Your task to perform on an android device: Go to wifi settings Image 0: 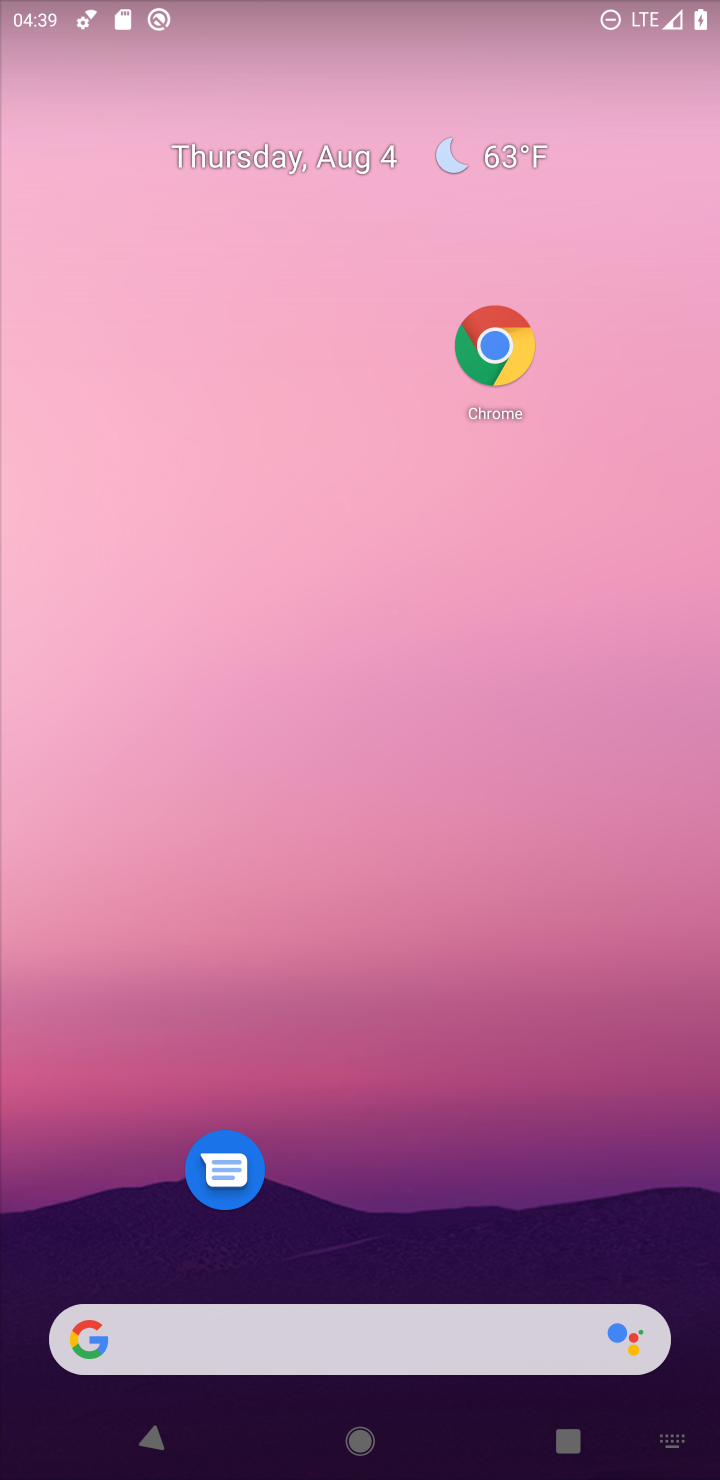
Step 0: press home button
Your task to perform on an android device: Go to wifi settings Image 1: 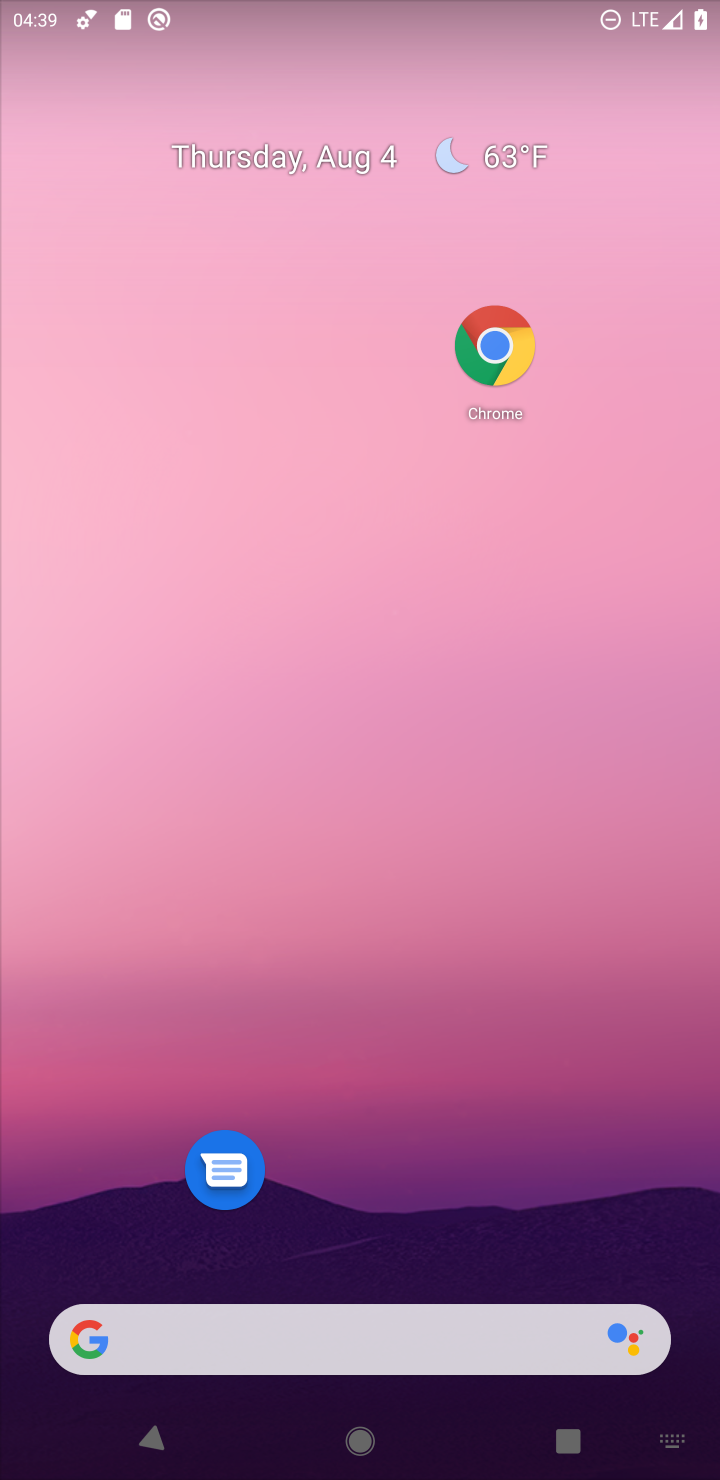
Step 1: drag from (565, 645) to (549, 159)
Your task to perform on an android device: Go to wifi settings Image 2: 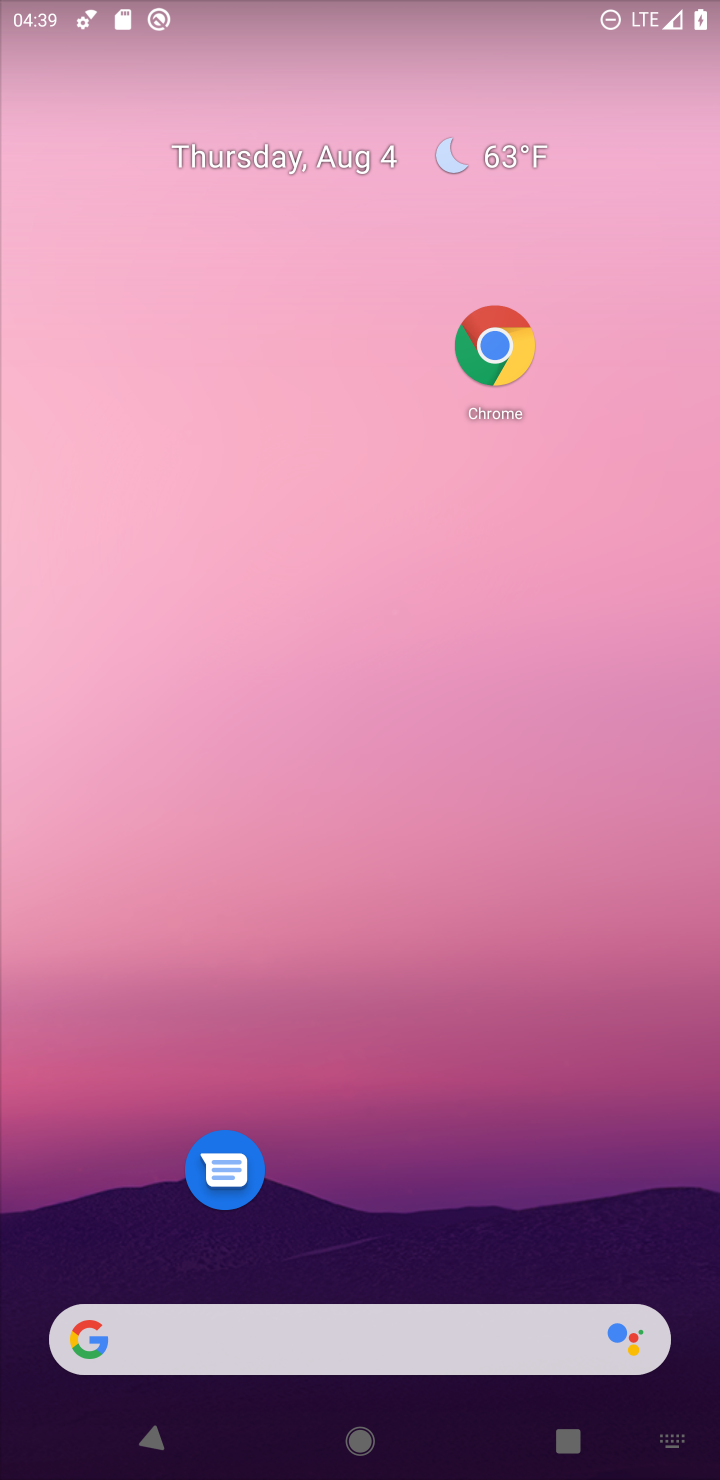
Step 2: drag from (663, 1270) to (605, 382)
Your task to perform on an android device: Go to wifi settings Image 3: 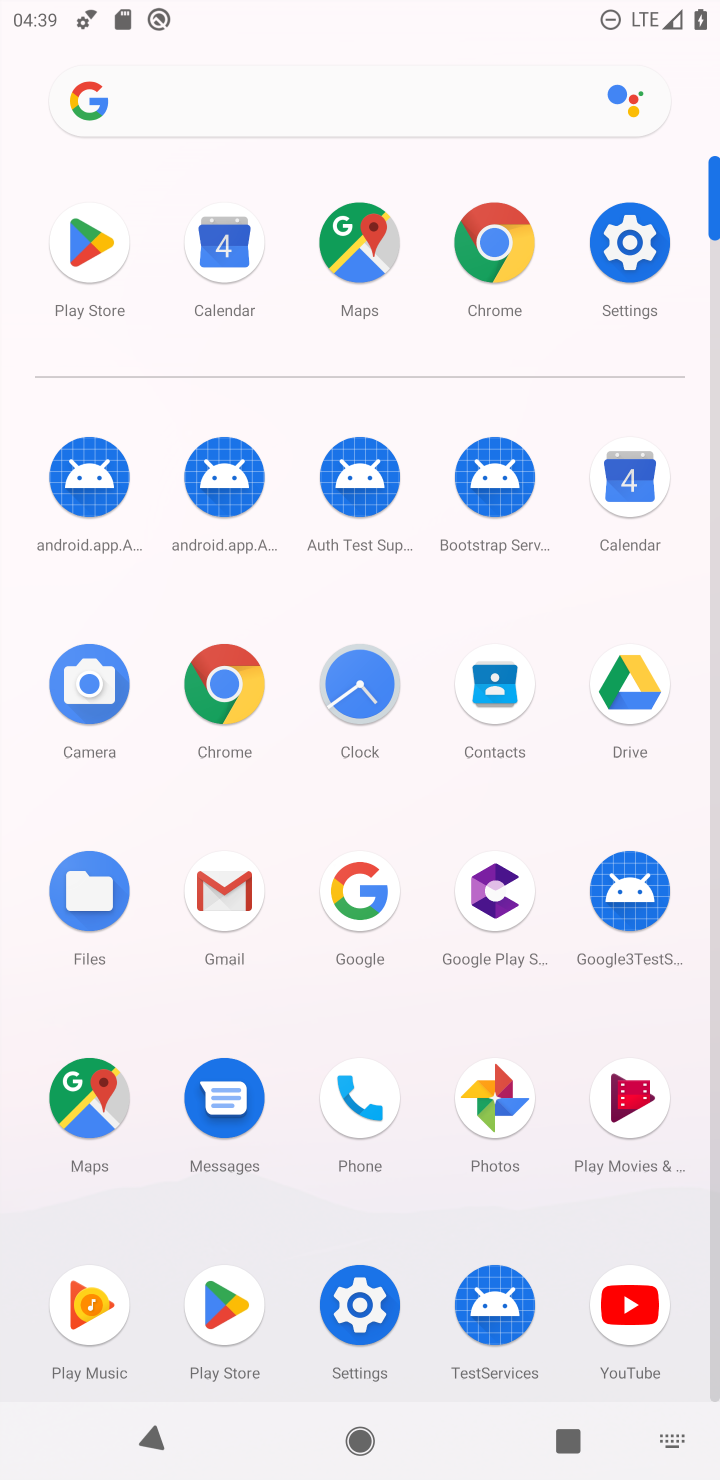
Step 3: click (624, 260)
Your task to perform on an android device: Go to wifi settings Image 4: 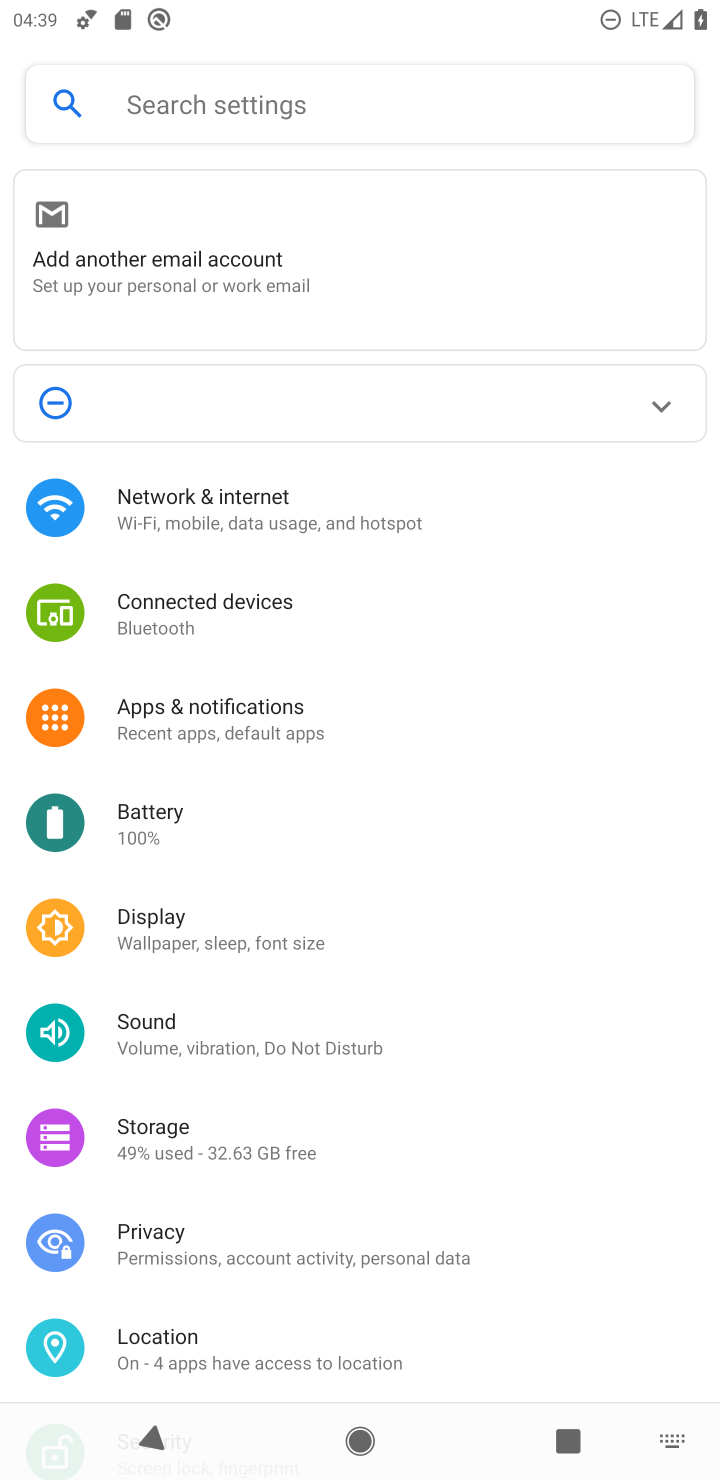
Step 4: click (442, 507)
Your task to perform on an android device: Go to wifi settings Image 5: 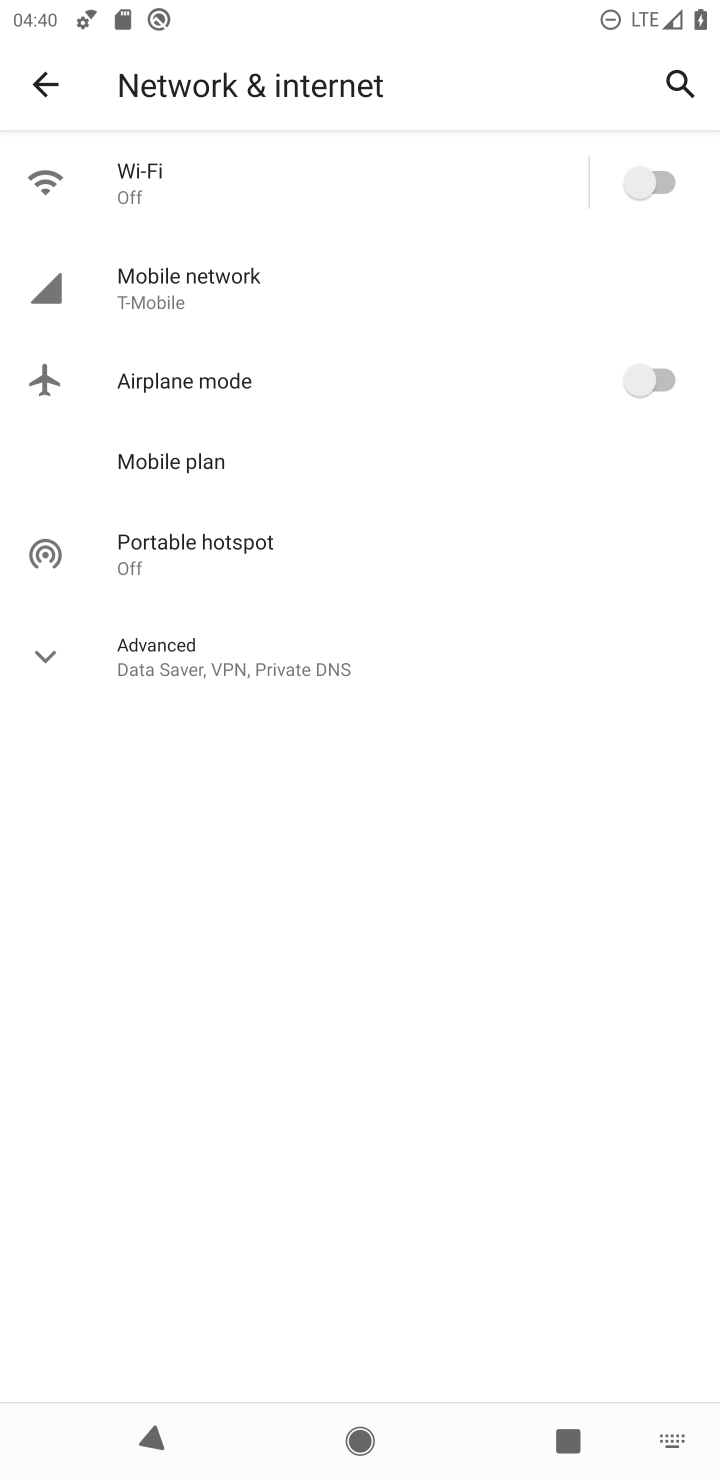
Step 5: click (280, 187)
Your task to perform on an android device: Go to wifi settings Image 6: 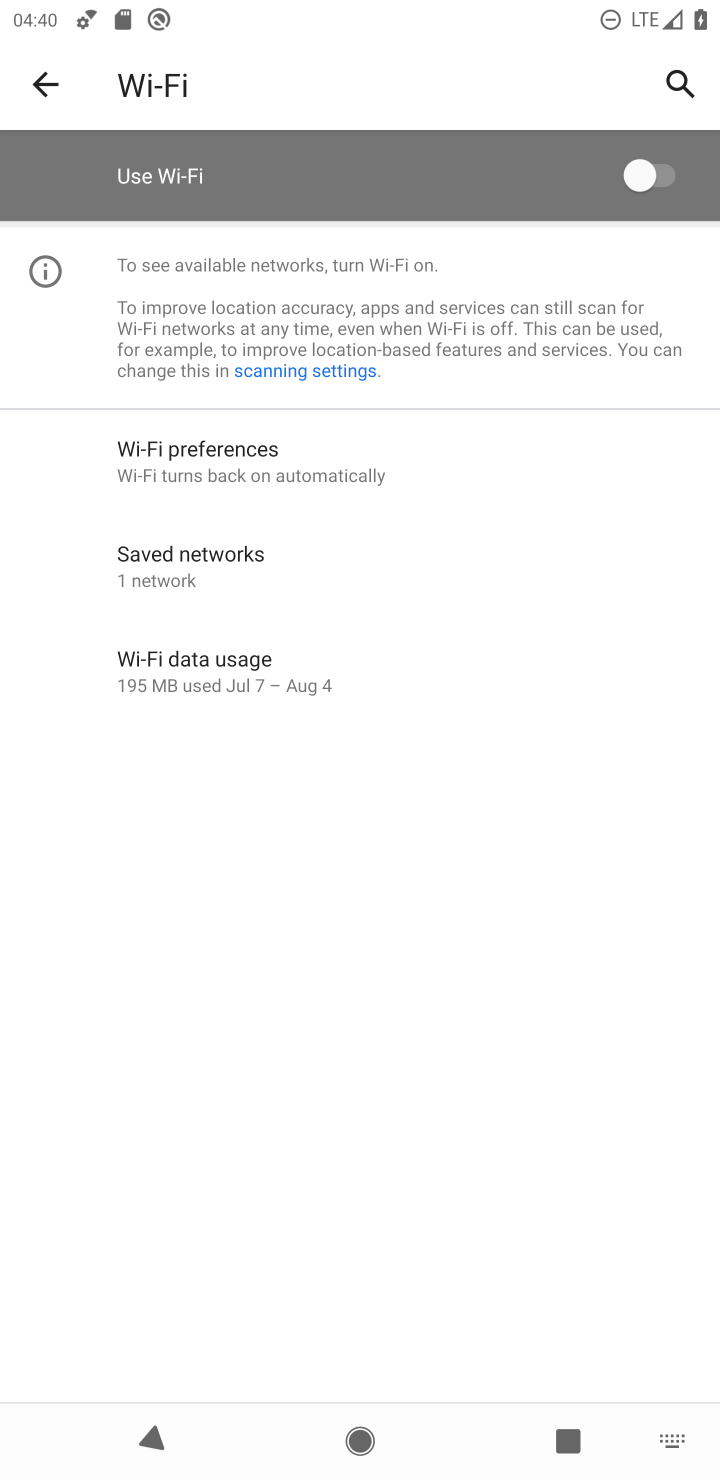
Step 6: task complete